Your task to perform on an android device: turn on sleep mode Image 0: 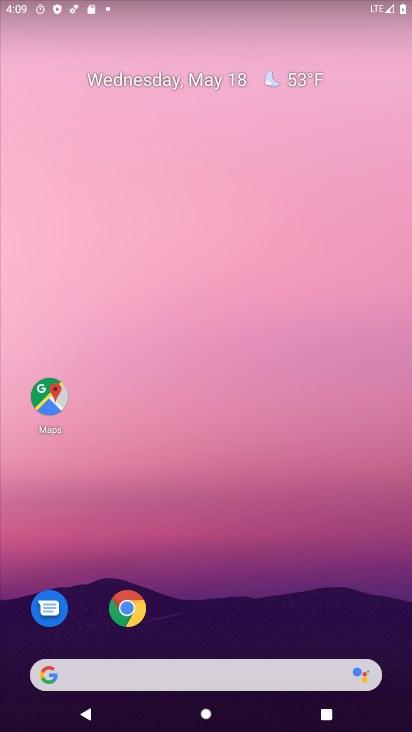
Step 0: drag from (313, 627) to (373, 170)
Your task to perform on an android device: turn on sleep mode Image 1: 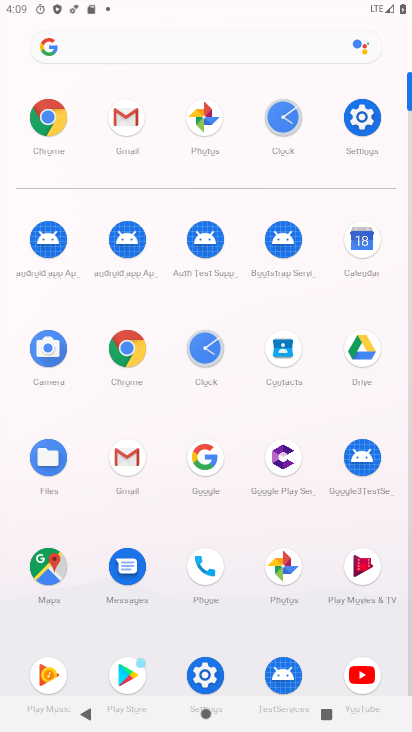
Step 1: click (355, 118)
Your task to perform on an android device: turn on sleep mode Image 2: 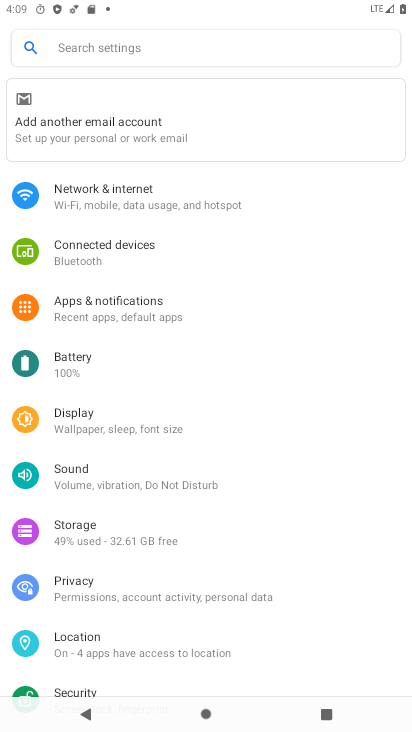
Step 2: click (139, 423)
Your task to perform on an android device: turn on sleep mode Image 3: 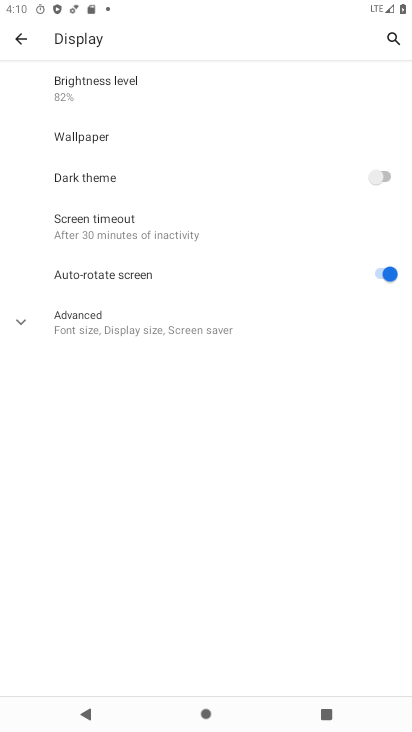
Step 3: task complete